Your task to perform on an android device: Open network settings Image 0: 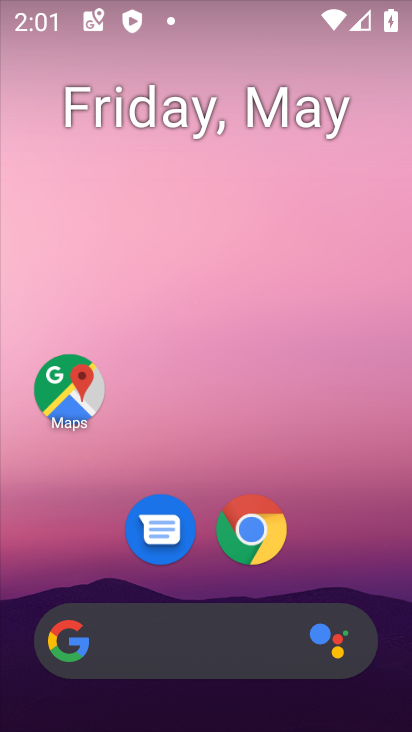
Step 0: drag from (349, 564) to (299, 11)
Your task to perform on an android device: Open network settings Image 1: 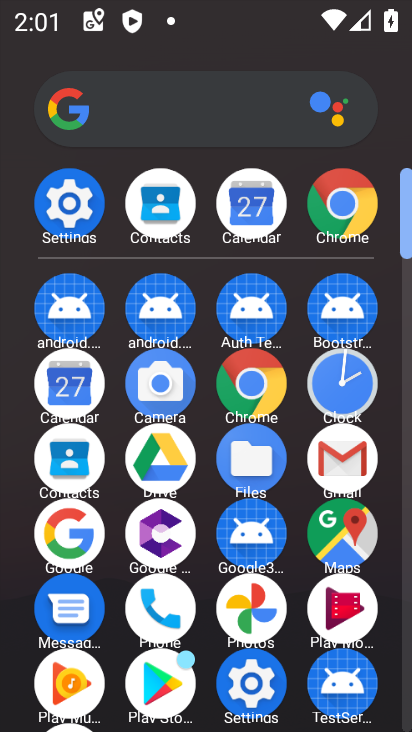
Step 1: click (73, 194)
Your task to perform on an android device: Open network settings Image 2: 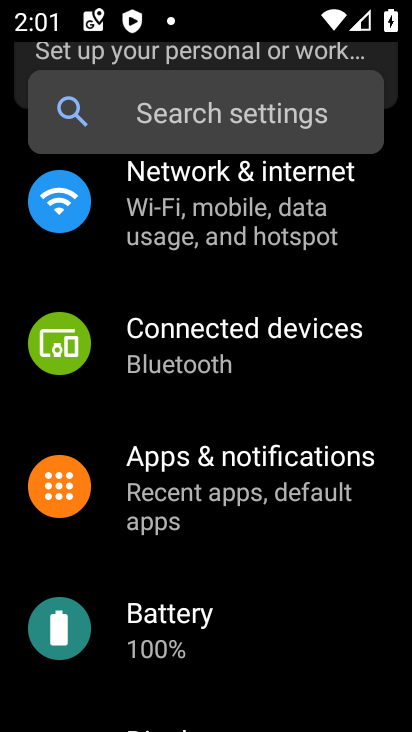
Step 2: click (177, 219)
Your task to perform on an android device: Open network settings Image 3: 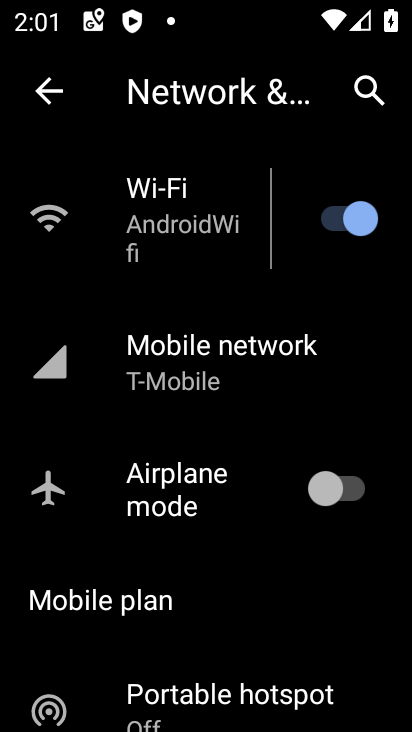
Step 3: task complete